Your task to perform on an android device: toggle priority inbox in the gmail app Image 0: 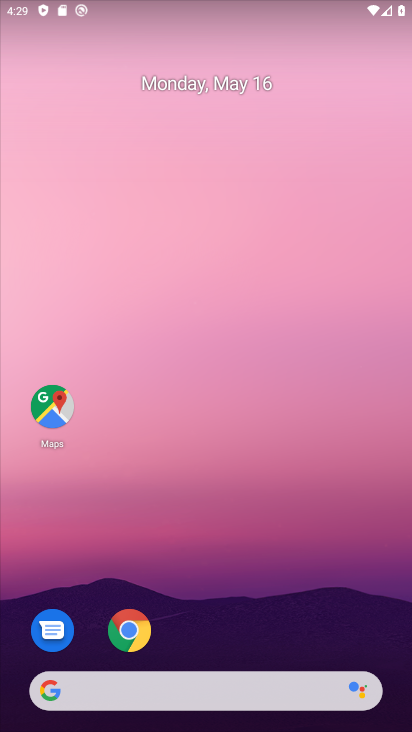
Step 0: press home button
Your task to perform on an android device: toggle priority inbox in the gmail app Image 1: 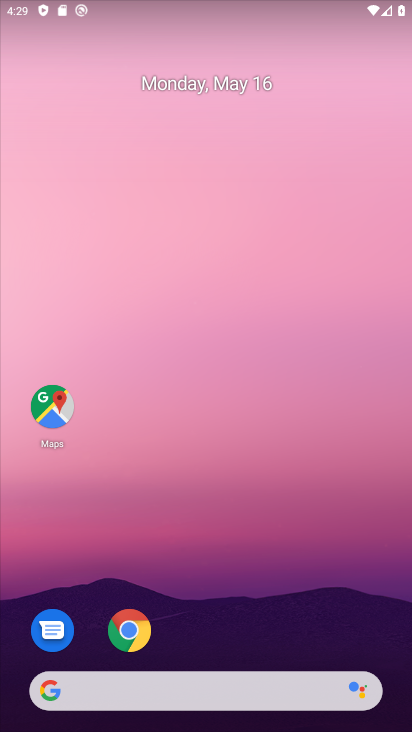
Step 1: drag from (246, 573) to (327, 54)
Your task to perform on an android device: toggle priority inbox in the gmail app Image 2: 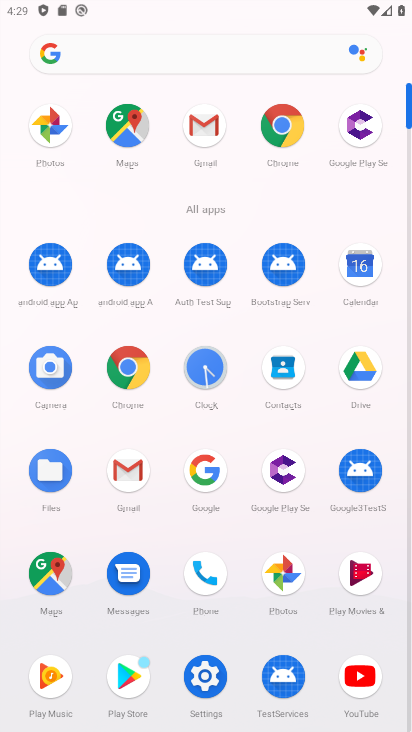
Step 2: click (212, 138)
Your task to perform on an android device: toggle priority inbox in the gmail app Image 3: 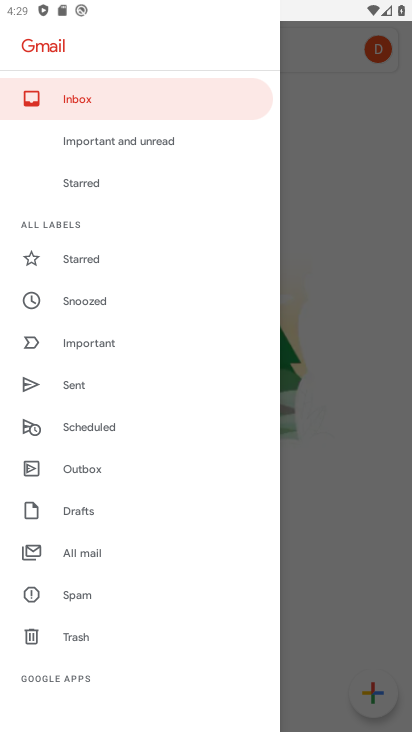
Step 3: drag from (115, 624) to (55, 250)
Your task to perform on an android device: toggle priority inbox in the gmail app Image 4: 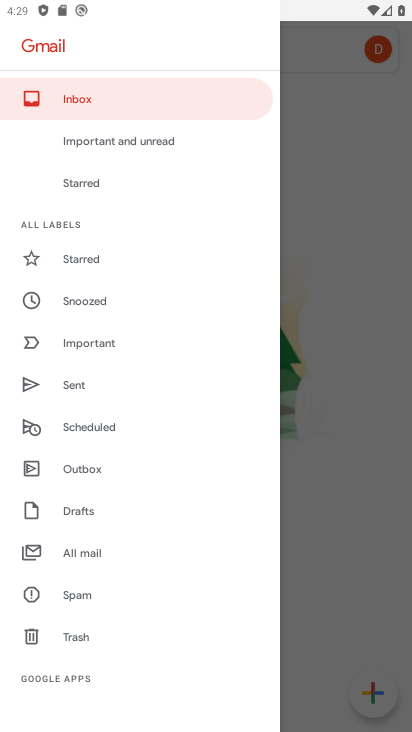
Step 4: drag from (99, 637) to (122, 264)
Your task to perform on an android device: toggle priority inbox in the gmail app Image 5: 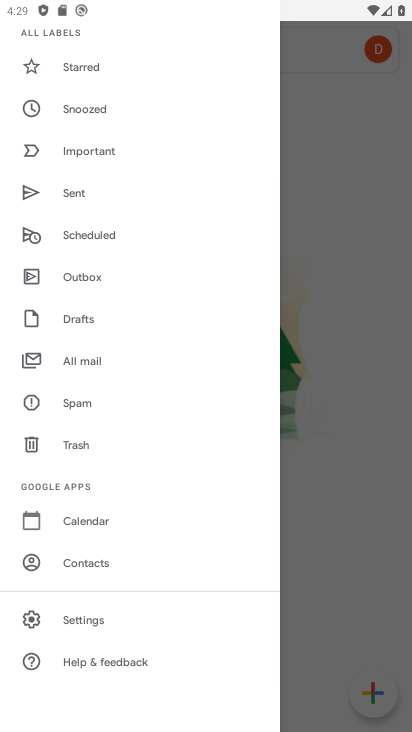
Step 5: click (95, 618)
Your task to perform on an android device: toggle priority inbox in the gmail app Image 6: 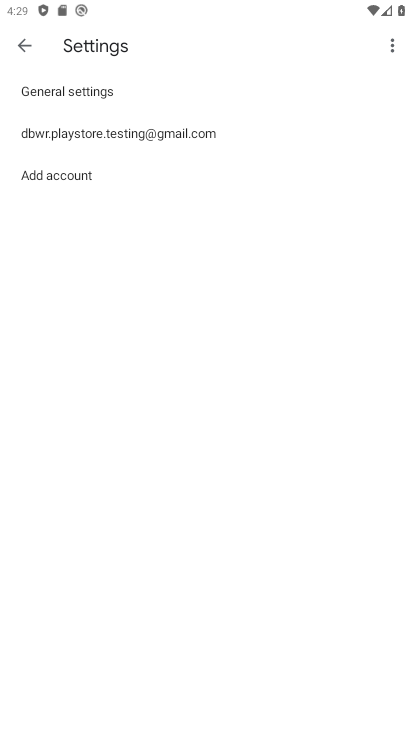
Step 6: click (184, 134)
Your task to perform on an android device: toggle priority inbox in the gmail app Image 7: 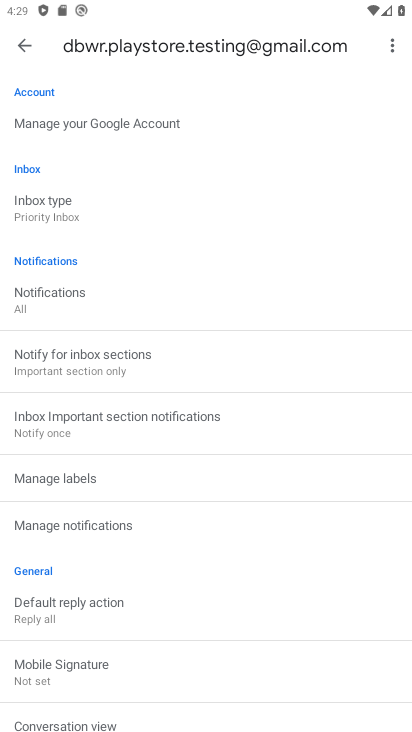
Step 7: click (48, 198)
Your task to perform on an android device: toggle priority inbox in the gmail app Image 8: 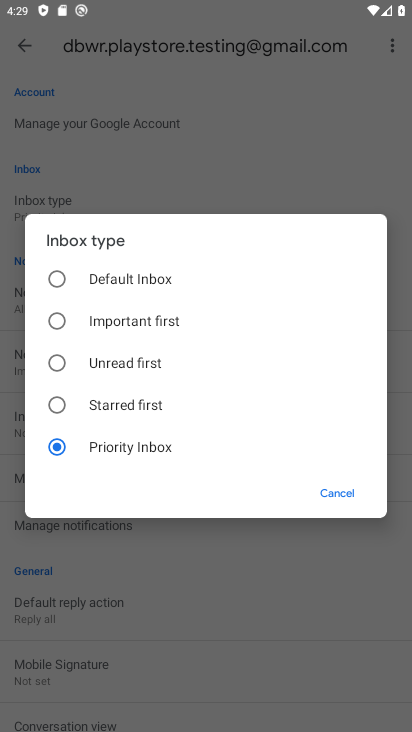
Step 8: click (52, 282)
Your task to perform on an android device: toggle priority inbox in the gmail app Image 9: 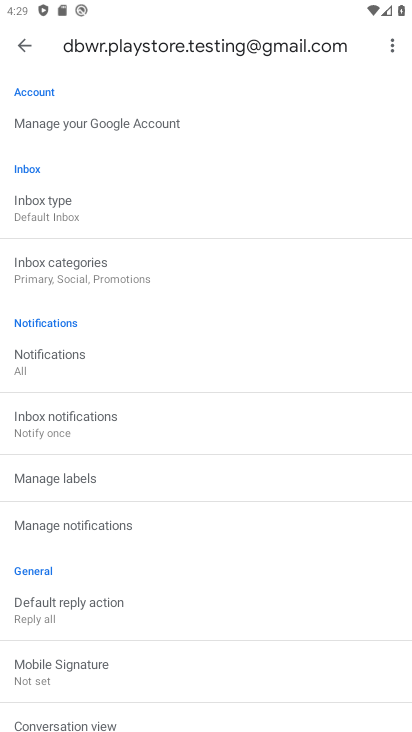
Step 9: task complete